Your task to perform on an android device: turn pop-ups off in chrome Image 0: 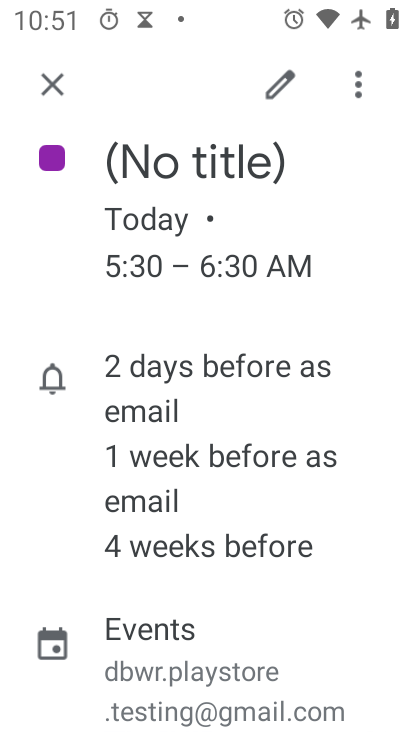
Step 0: press home button
Your task to perform on an android device: turn pop-ups off in chrome Image 1: 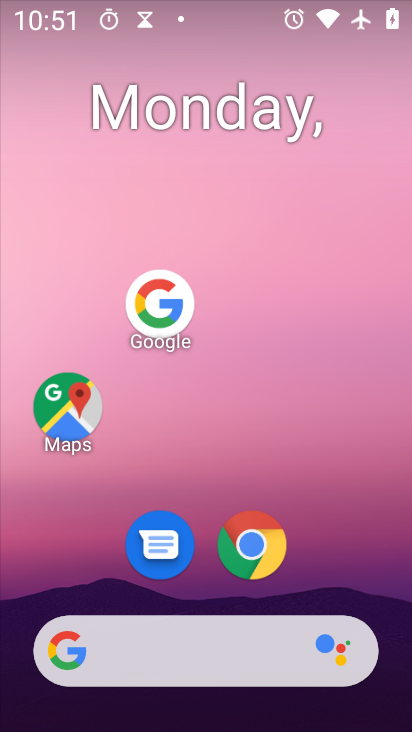
Step 1: click (273, 559)
Your task to perform on an android device: turn pop-ups off in chrome Image 2: 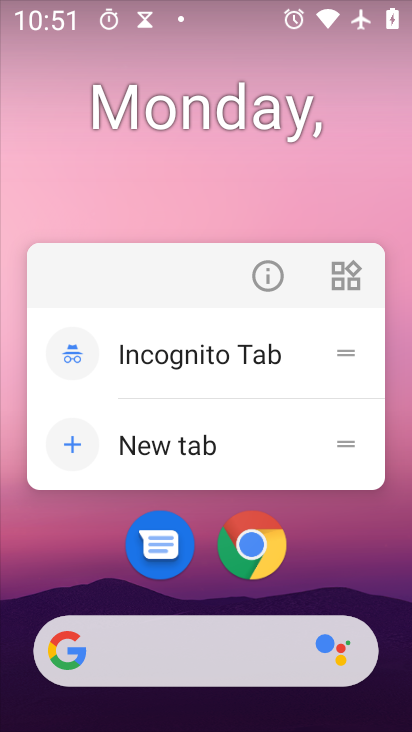
Step 2: click (258, 565)
Your task to perform on an android device: turn pop-ups off in chrome Image 3: 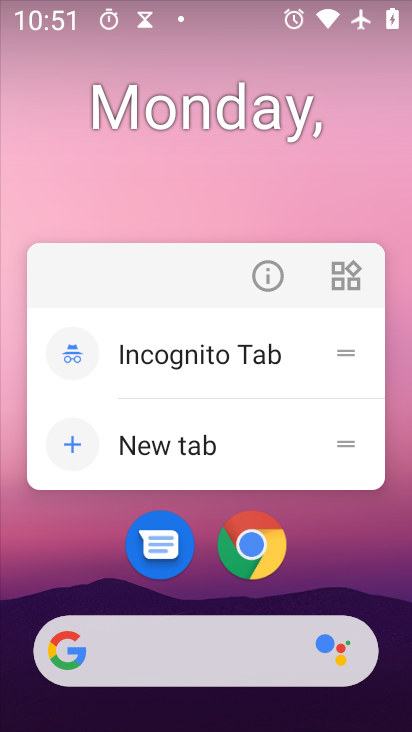
Step 3: click (259, 557)
Your task to perform on an android device: turn pop-ups off in chrome Image 4: 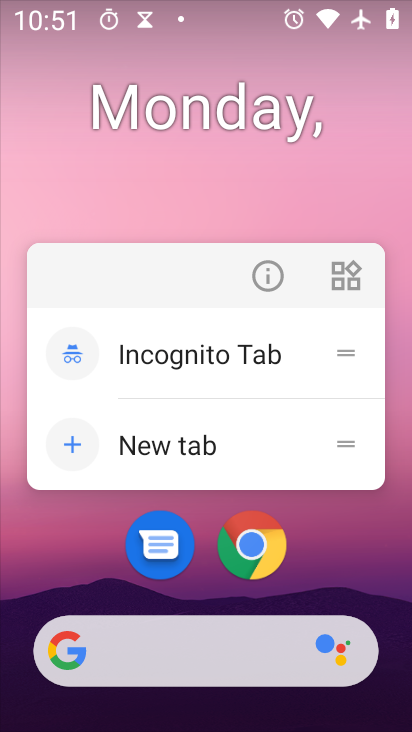
Step 4: click (255, 551)
Your task to perform on an android device: turn pop-ups off in chrome Image 5: 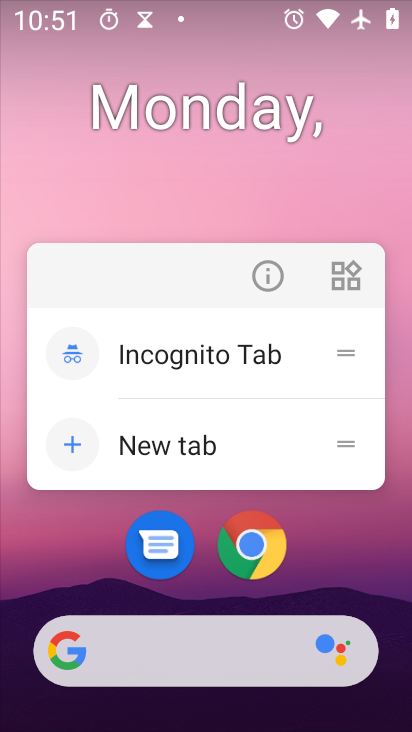
Step 5: click (255, 551)
Your task to perform on an android device: turn pop-ups off in chrome Image 6: 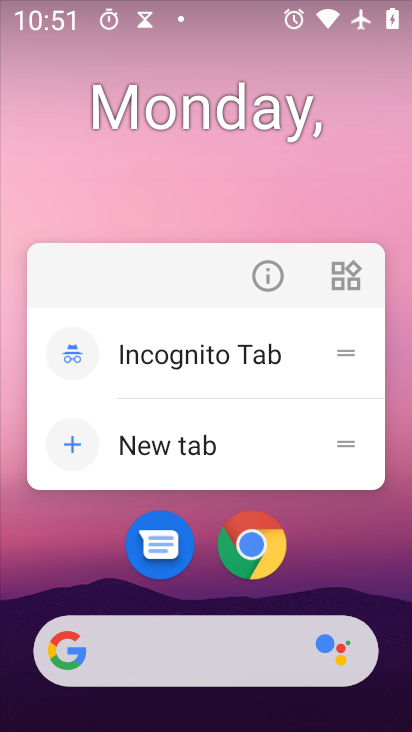
Step 6: click (255, 551)
Your task to perform on an android device: turn pop-ups off in chrome Image 7: 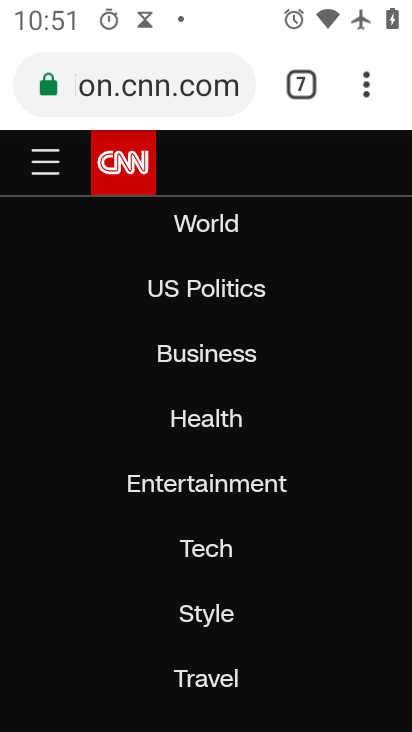
Step 7: drag from (370, 86) to (227, 604)
Your task to perform on an android device: turn pop-ups off in chrome Image 8: 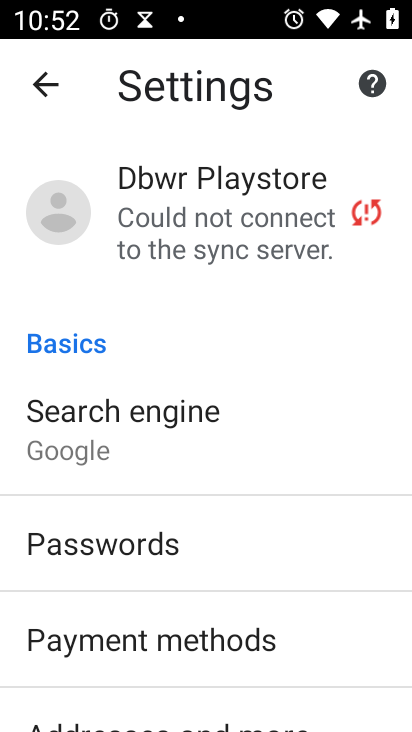
Step 8: drag from (232, 580) to (316, 286)
Your task to perform on an android device: turn pop-ups off in chrome Image 9: 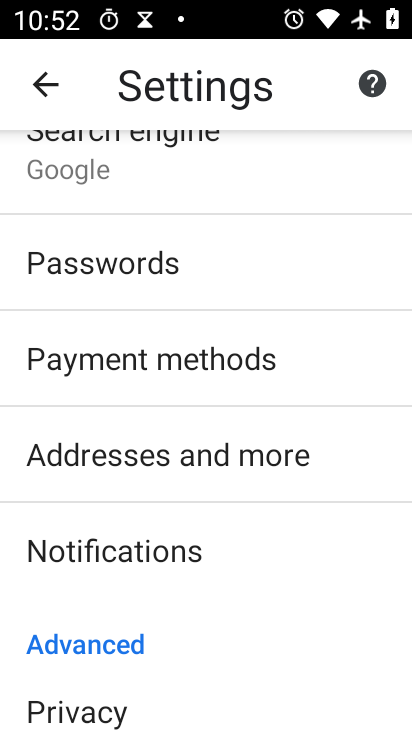
Step 9: drag from (256, 641) to (290, 131)
Your task to perform on an android device: turn pop-ups off in chrome Image 10: 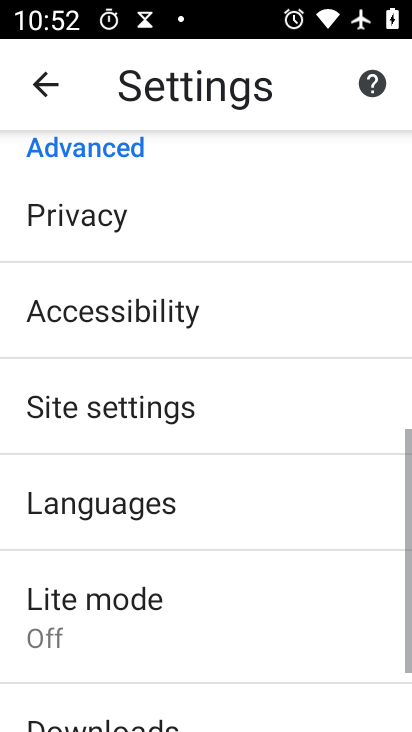
Step 10: click (129, 423)
Your task to perform on an android device: turn pop-ups off in chrome Image 11: 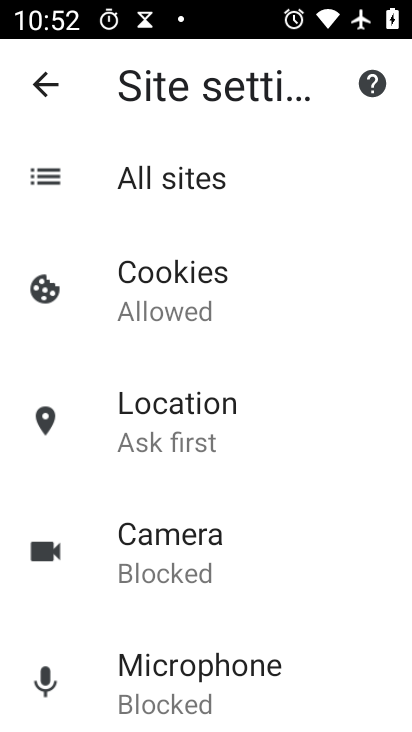
Step 11: drag from (251, 616) to (329, 163)
Your task to perform on an android device: turn pop-ups off in chrome Image 12: 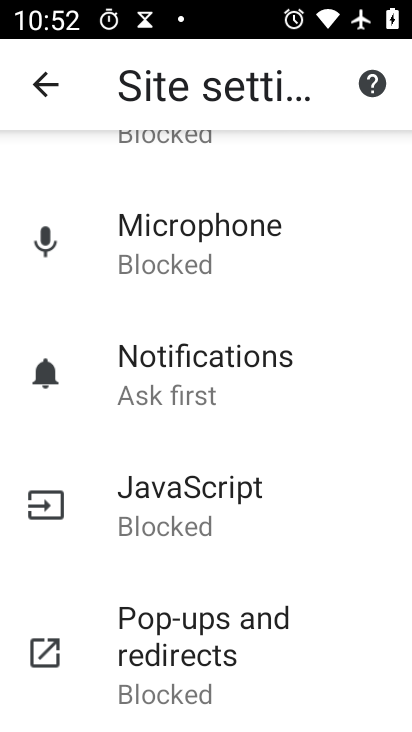
Step 12: click (214, 645)
Your task to perform on an android device: turn pop-ups off in chrome Image 13: 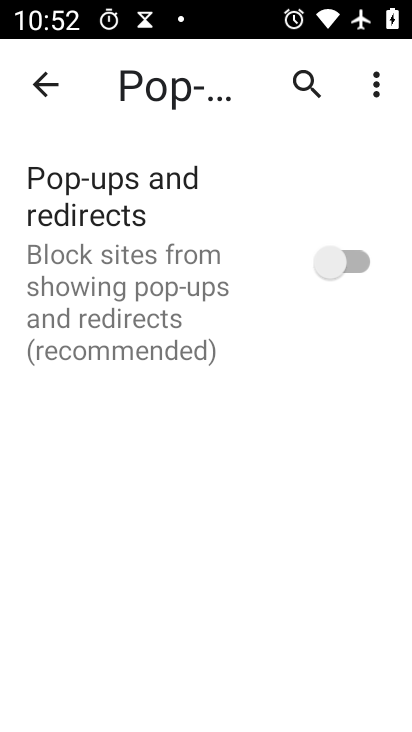
Step 13: task complete